Your task to perform on an android device: Turn on the flashlight Image 0: 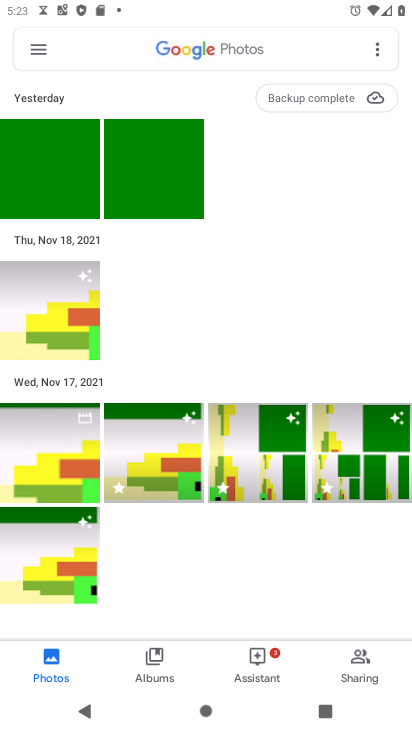
Step 0: press back button
Your task to perform on an android device: Turn on the flashlight Image 1: 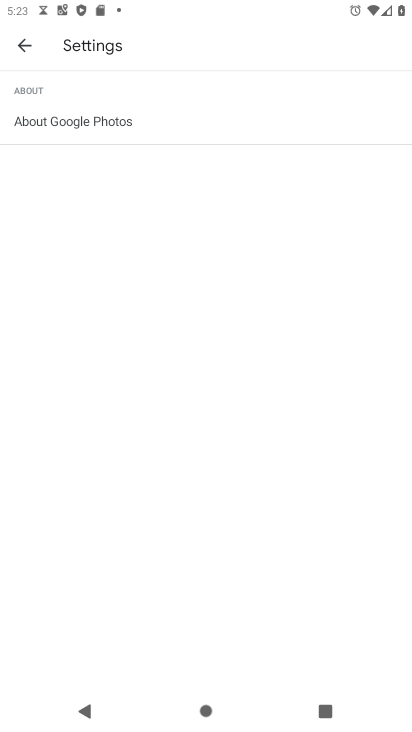
Step 1: press back button
Your task to perform on an android device: Turn on the flashlight Image 2: 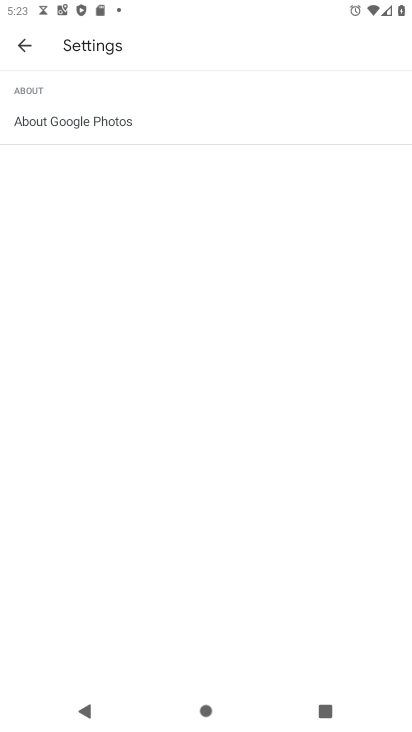
Step 2: press home button
Your task to perform on an android device: Turn on the flashlight Image 3: 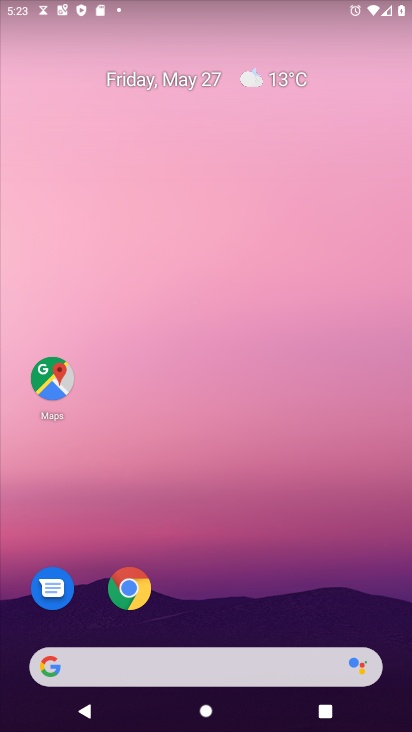
Step 3: drag from (231, 595) to (346, 21)
Your task to perform on an android device: Turn on the flashlight Image 4: 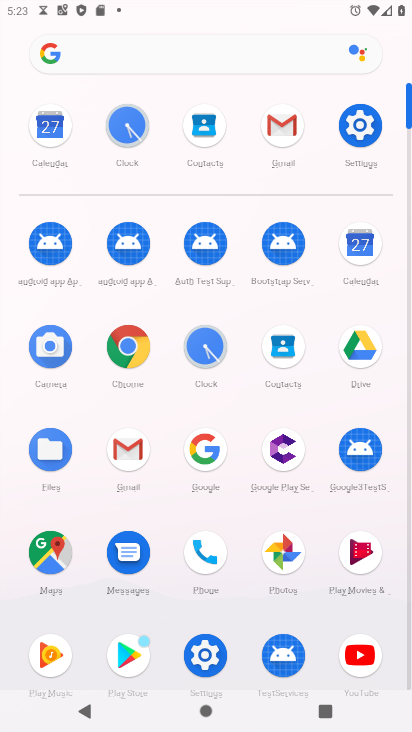
Step 4: click (360, 115)
Your task to perform on an android device: Turn on the flashlight Image 5: 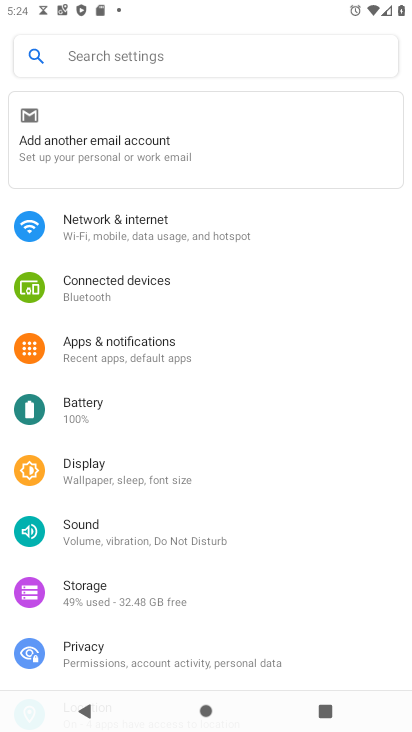
Step 5: click (166, 59)
Your task to perform on an android device: Turn on the flashlight Image 6: 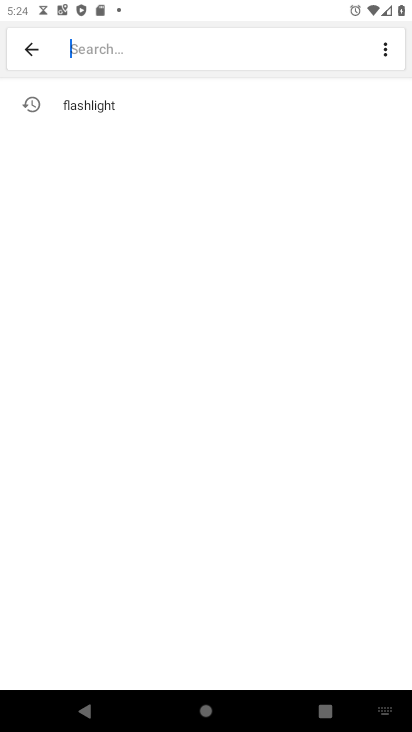
Step 6: click (139, 100)
Your task to perform on an android device: Turn on the flashlight Image 7: 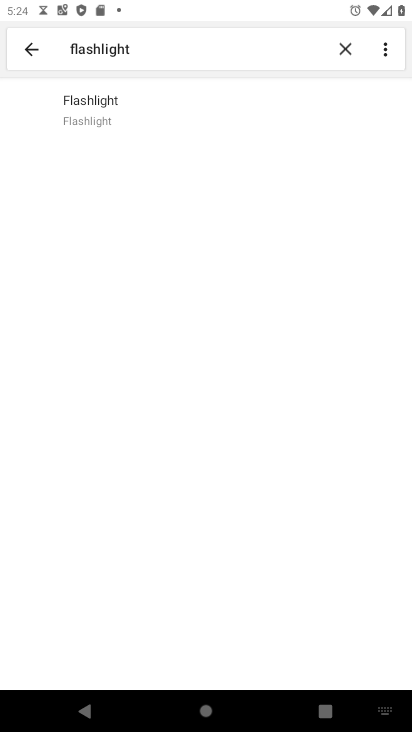
Step 7: task complete